Your task to perform on an android device: check google app version Image 0: 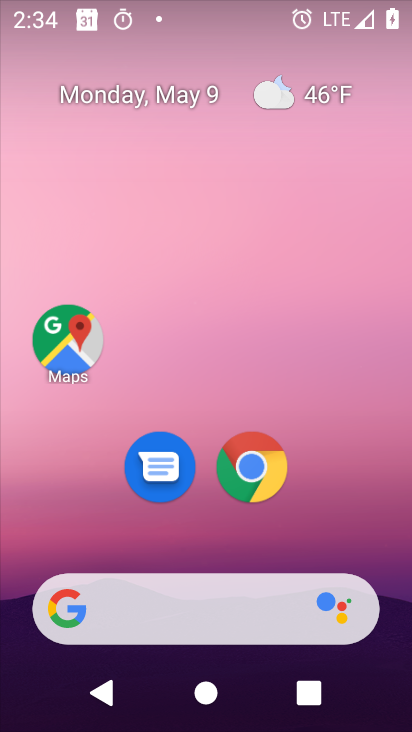
Step 0: drag from (385, 532) to (324, 115)
Your task to perform on an android device: check google app version Image 1: 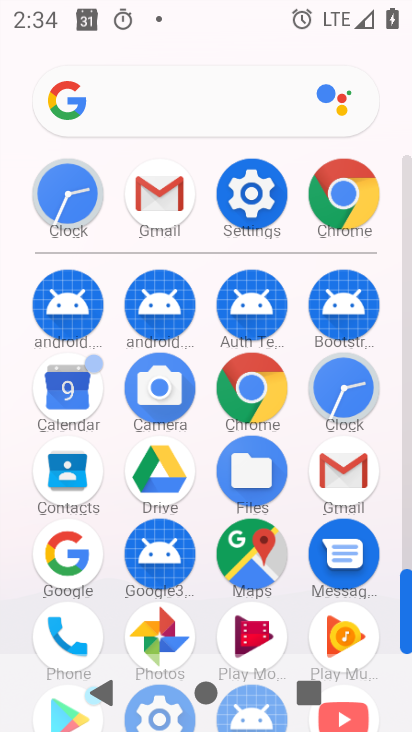
Step 1: click (71, 557)
Your task to perform on an android device: check google app version Image 2: 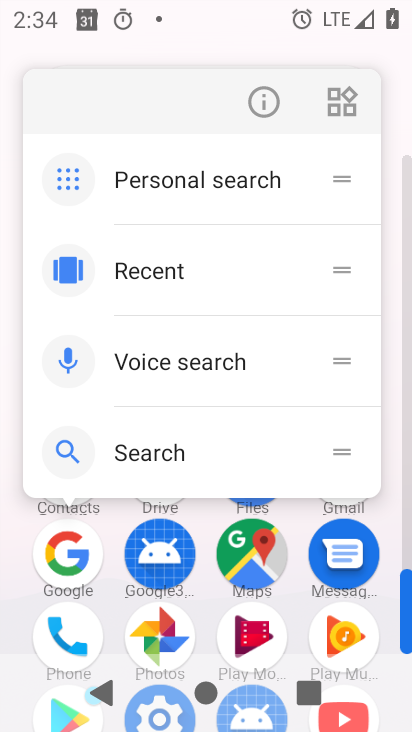
Step 2: click (274, 109)
Your task to perform on an android device: check google app version Image 3: 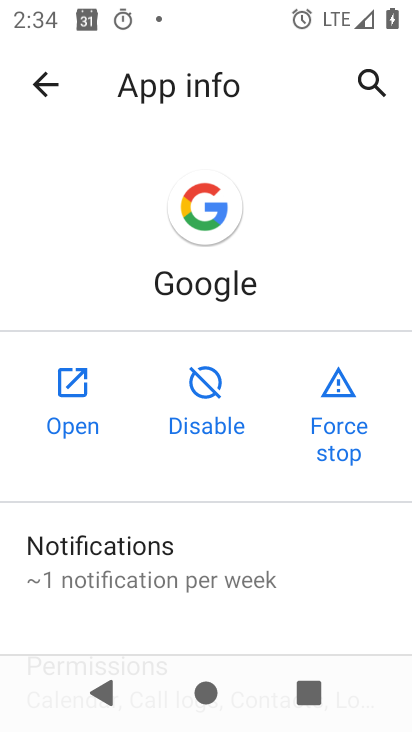
Step 3: drag from (239, 556) to (284, 13)
Your task to perform on an android device: check google app version Image 4: 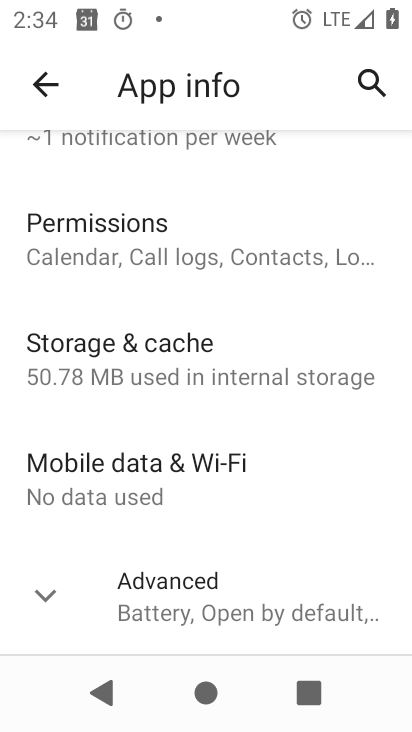
Step 4: drag from (257, 575) to (261, 120)
Your task to perform on an android device: check google app version Image 5: 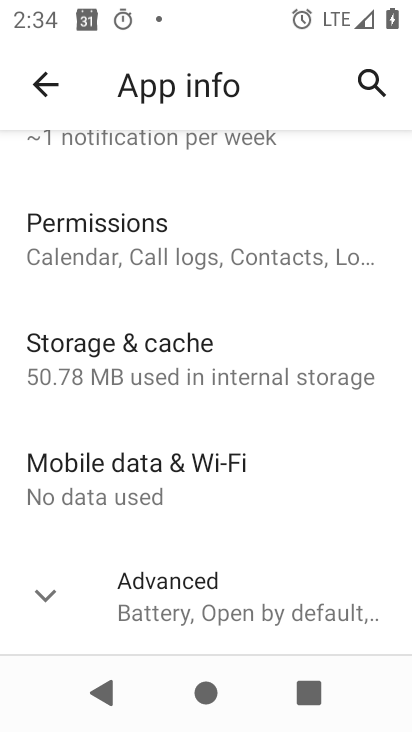
Step 5: click (177, 587)
Your task to perform on an android device: check google app version Image 6: 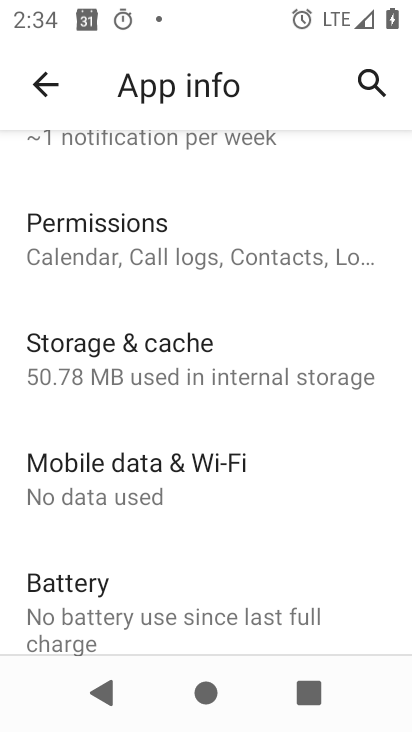
Step 6: drag from (210, 525) to (230, 51)
Your task to perform on an android device: check google app version Image 7: 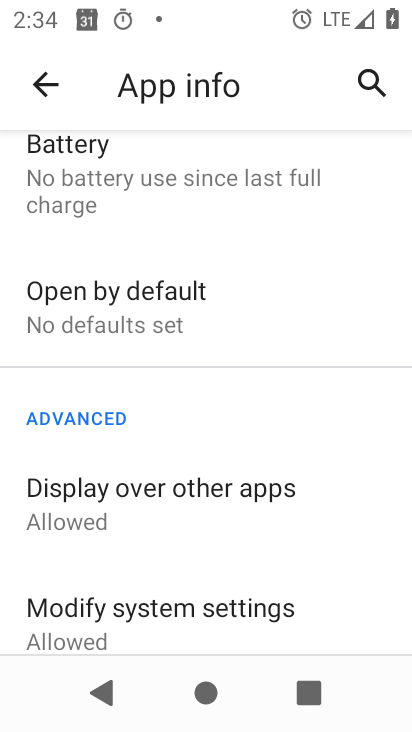
Step 7: drag from (200, 584) to (238, 16)
Your task to perform on an android device: check google app version Image 8: 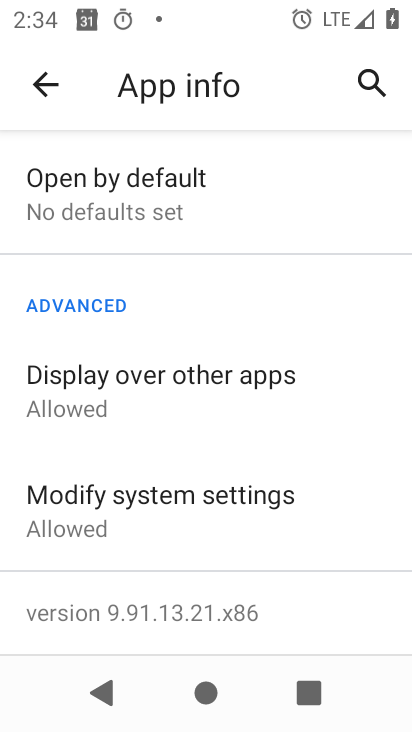
Step 8: click (172, 602)
Your task to perform on an android device: check google app version Image 9: 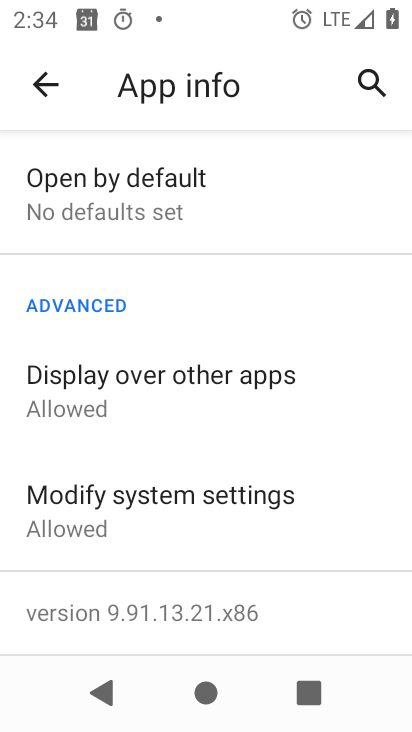
Step 9: task complete